Your task to perform on an android device: What's on my calendar tomorrow? Image 0: 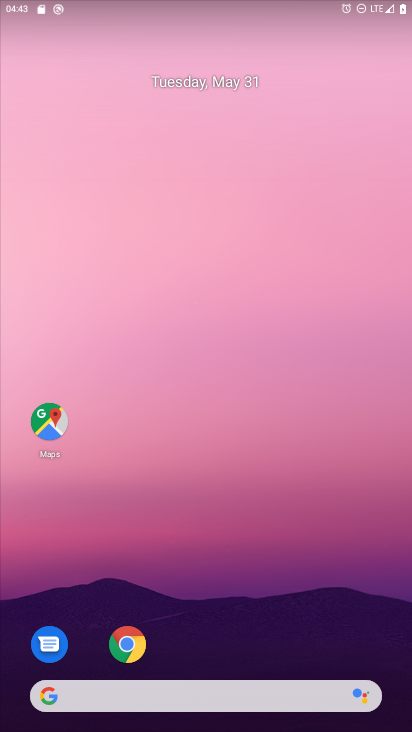
Step 0: drag from (284, 594) to (238, 126)
Your task to perform on an android device: What's on my calendar tomorrow? Image 1: 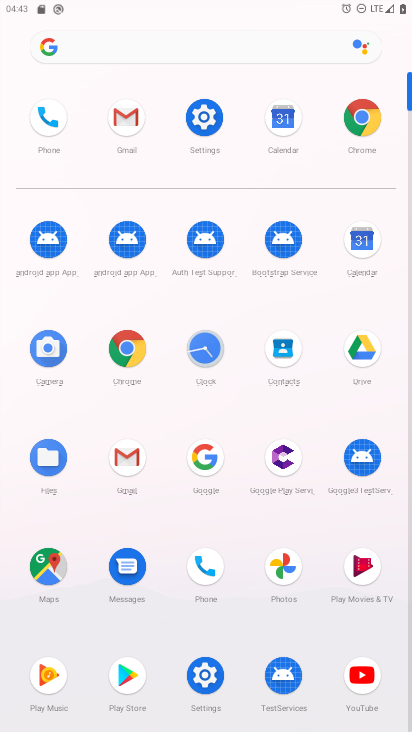
Step 1: click (281, 120)
Your task to perform on an android device: What's on my calendar tomorrow? Image 2: 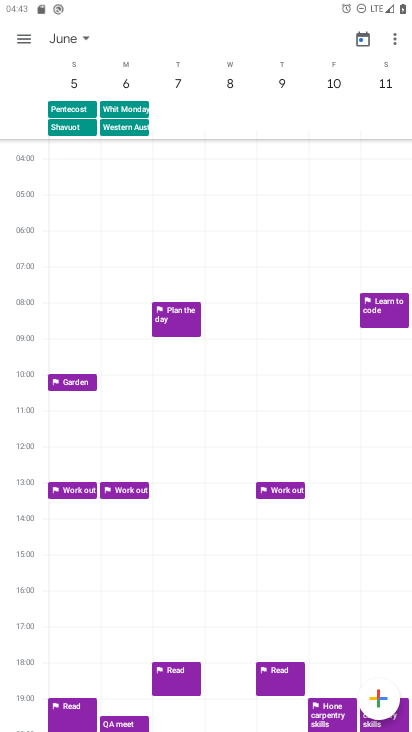
Step 2: drag from (78, 76) to (360, 95)
Your task to perform on an android device: What's on my calendar tomorrow? Image 3: 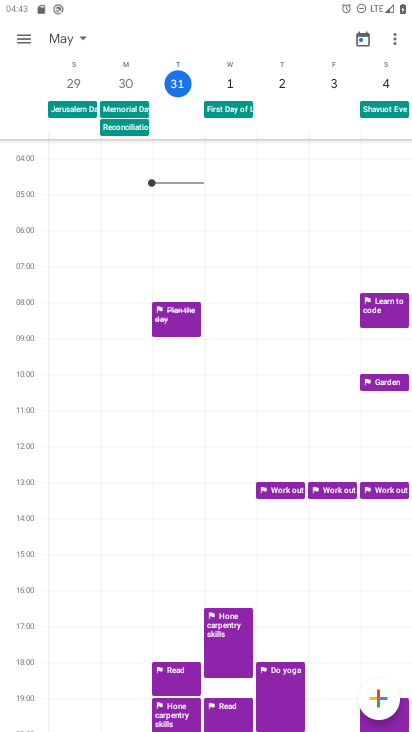
Step 3: click (231, 90)
Your task to perform on an android device: What's on my calendar tomorrow? Image 4: 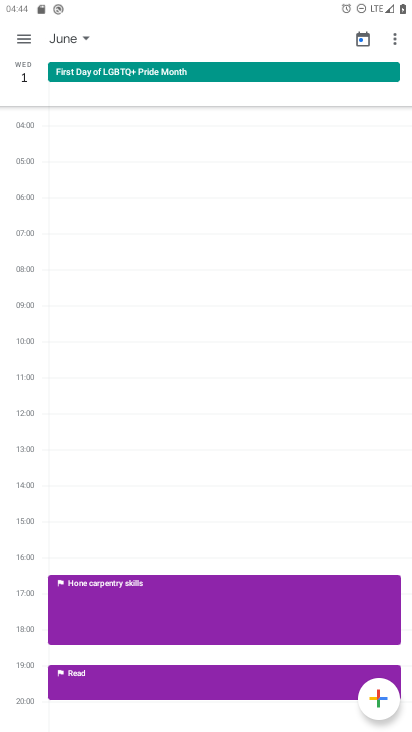
Step 4: task complete